Your task to perform on an android device: turn on data saver in the chrome app Image 0: 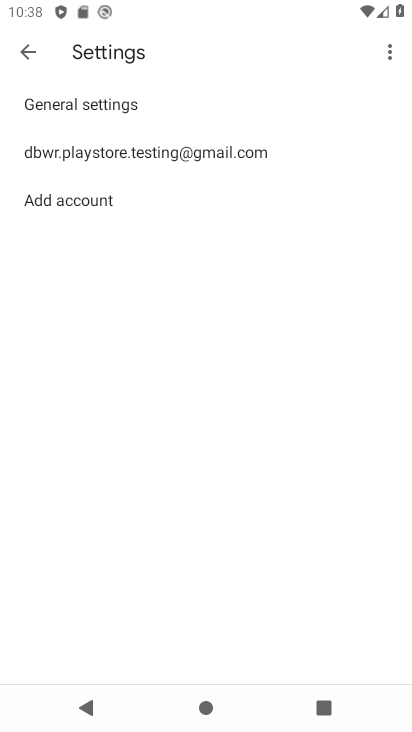
Step 0: press home button
Your task to perform on an android device: turn on data saver in the chrome app Image 1: 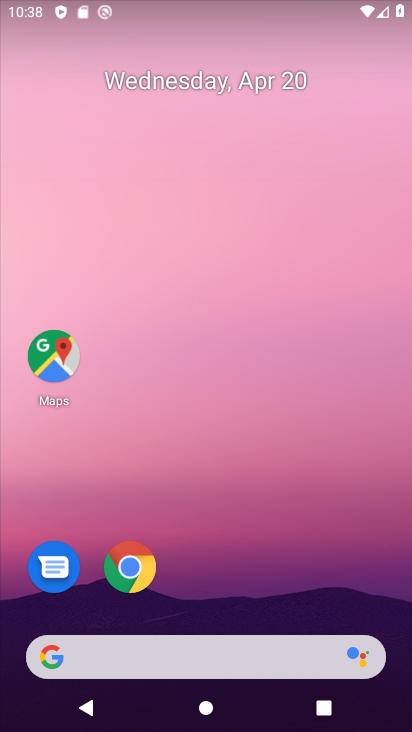
Step 1: click (128, 563)
Your task to perform on an android device: turn on data saver in the chrome app Image 2: 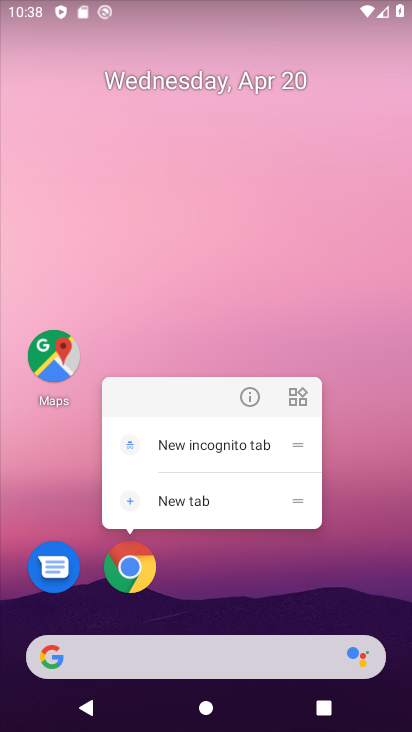
Step 2: click (140, 581)
Your task to perform on an android device: turn on data saver in the chrome app Image 3: 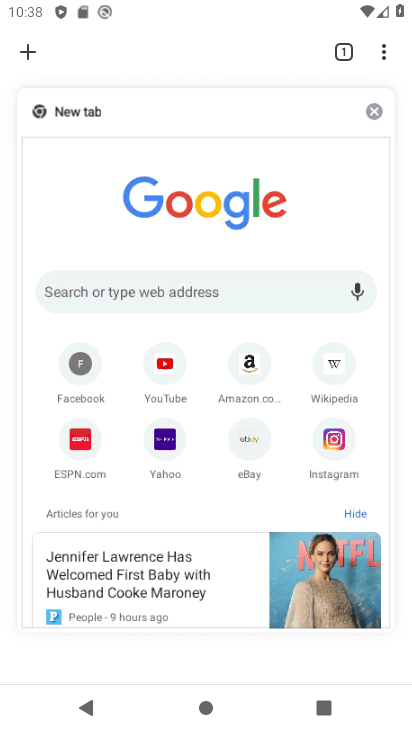
Step 3: click (336, 161)
Your task to perform on an android device: turn on data saver in the chrome app Image 4: 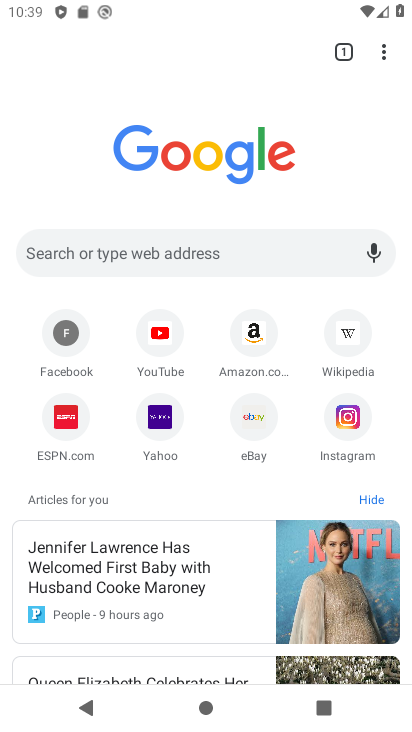
Step 4: click (385, 63)
Your task to perform on an android device: turn on data saver in the chrome app Image 5: 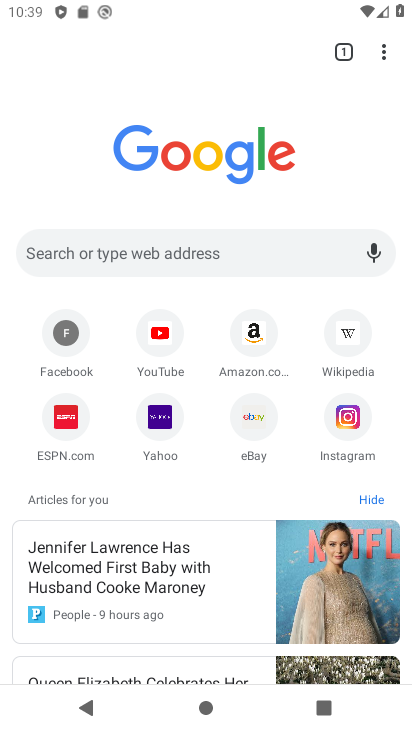
Step 5: drag from (383, 60) to (207, 426)
Your task to perform on an android device: turn on data saver in the chrome app Image 6: 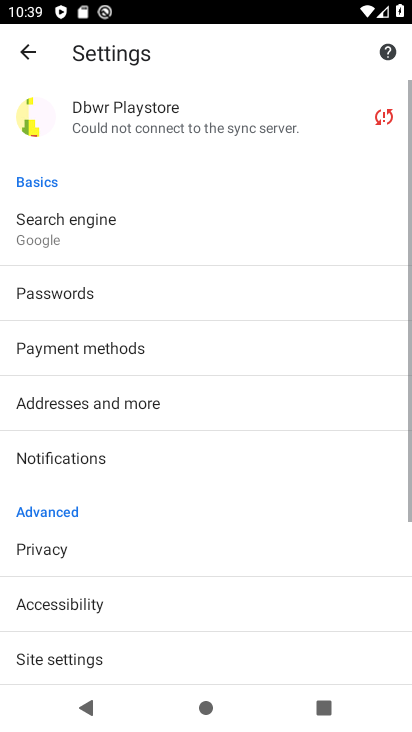
Step 6: drag from (143, 565) to (176, 131)
Your task to perform on an android device: turn on data saver in the chrome app Image 7: 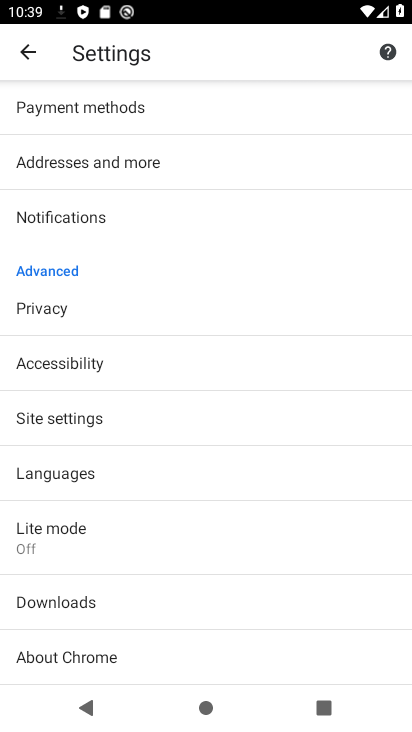
Step 7: click (85, 533)
Your task to perform on an android device: turn on data saver in the chrome app Image 8: 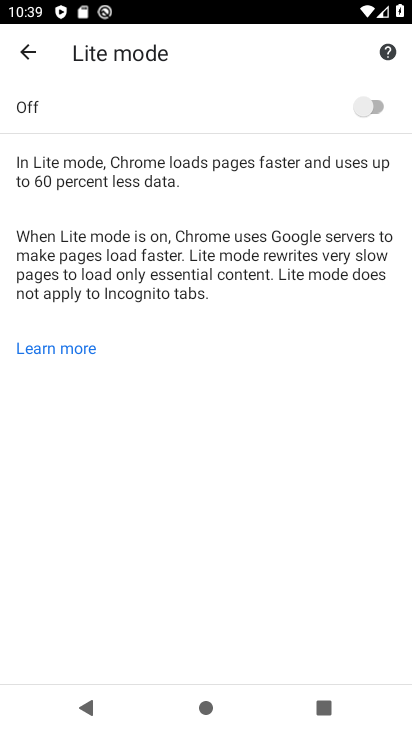
Step 8: click (381, 107)
Your task to perform on an android device: turn on data saver in the chrome app Image 9: 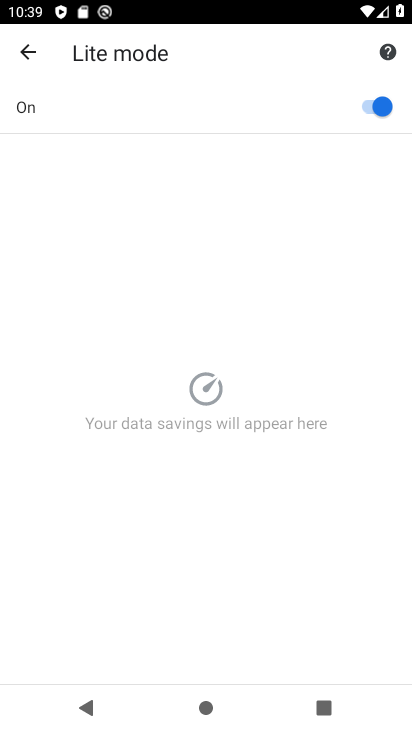
Step 9: task complete